Your task to perform on an android device: Open the map Image 0: 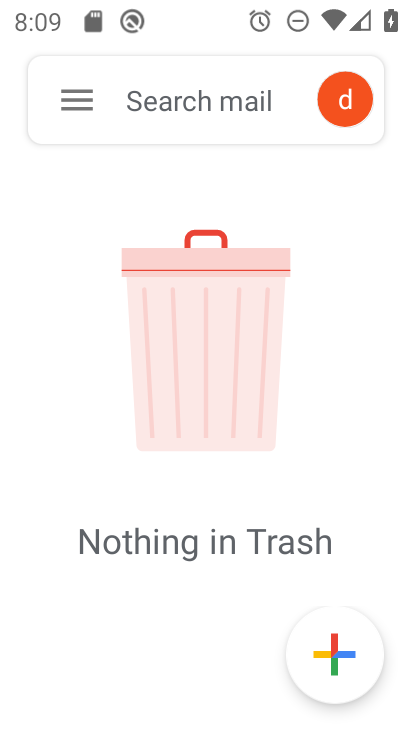
Step 0: press home button
Your task to perform on an android device: Open the map Image 1: 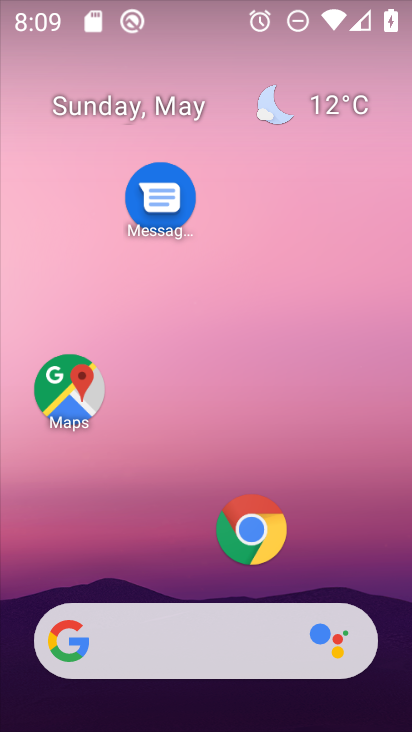
Step 1: click (69, 386)
Your task to perform on an android device: Open the map Image 2: 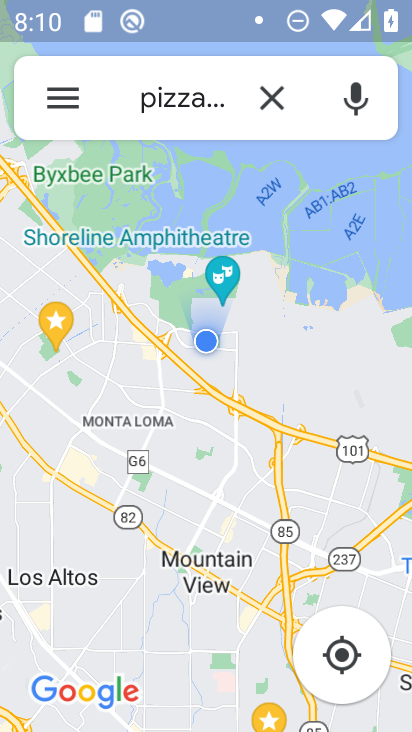
Step 2: task complete